Your task to perform on an android device: Go to calendar. Show me events next week Image 0: 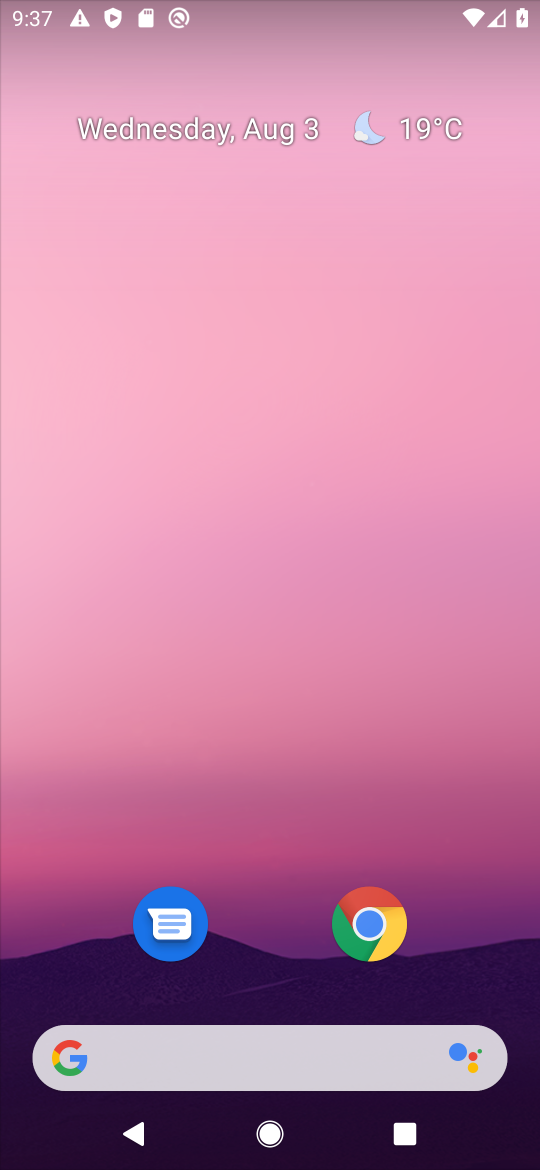
Step 0: press home button
Your task to perform on an android device: Go to calendar. Show me events next week Image 1: 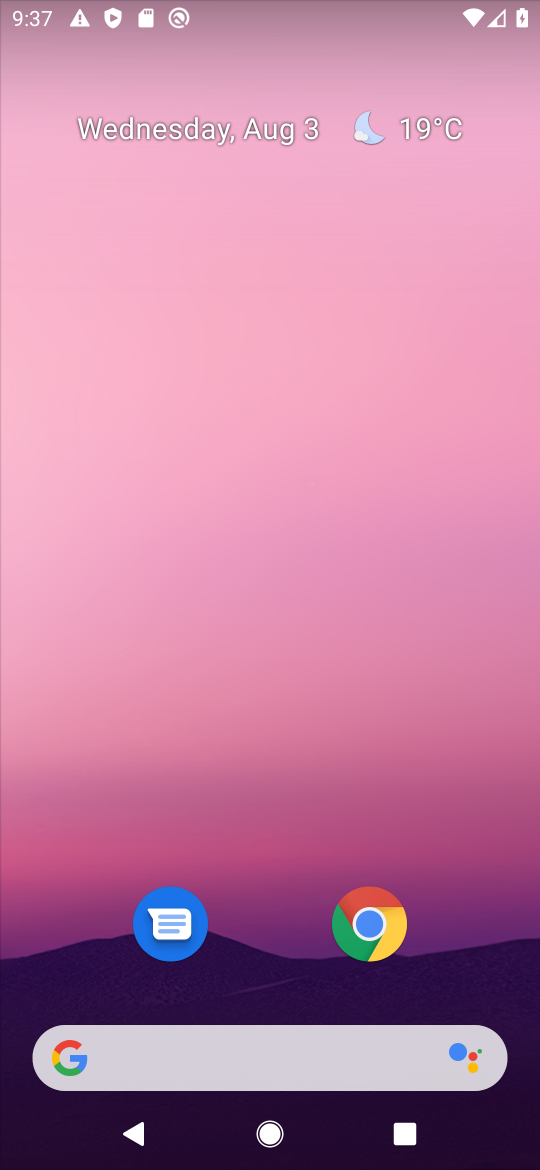
Step 1: drag from (275, 980) to (308, 51)
Your task to perform on an android device: Go to calendar. Show me events next week Image 2: 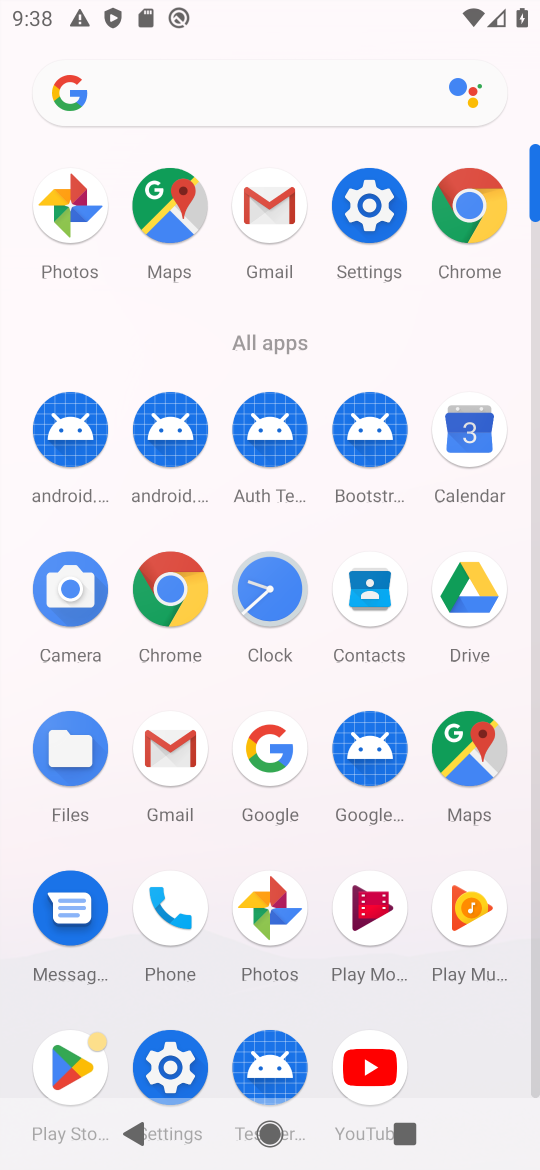
Step 2: click (471, 426)
Your task to perform on an android device: Go to calendar. Show me events next week Image 3: 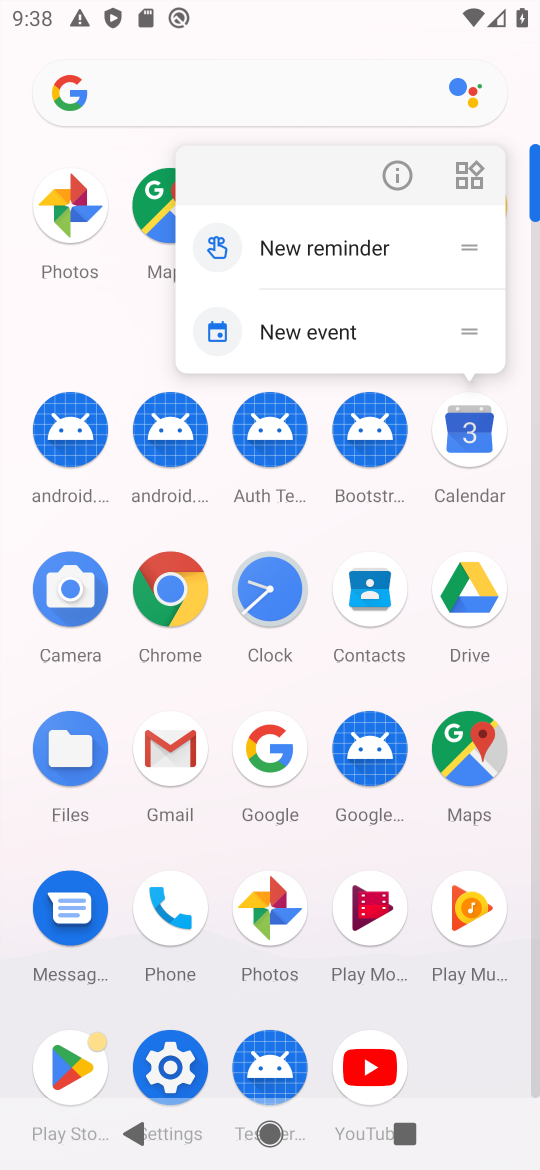
Step 3: click (464, 437)
Your task to perform on an android device: Go to calendar. Show me events next week Image 4: 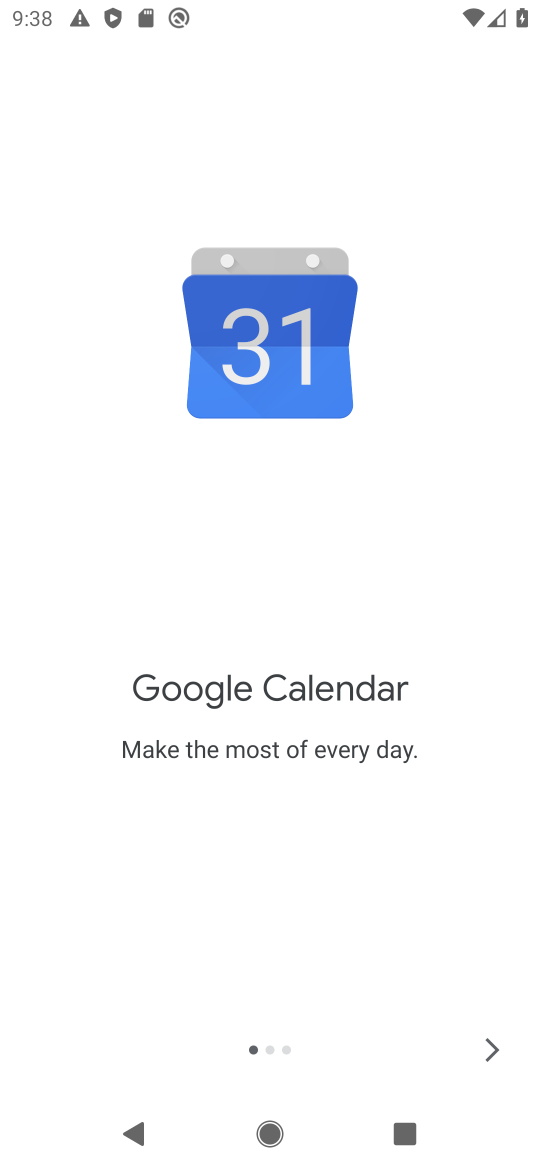
Step 4: click (486, 1039)
Your task to perform on an android device: Go to calendar. Show me events next week Image 5: 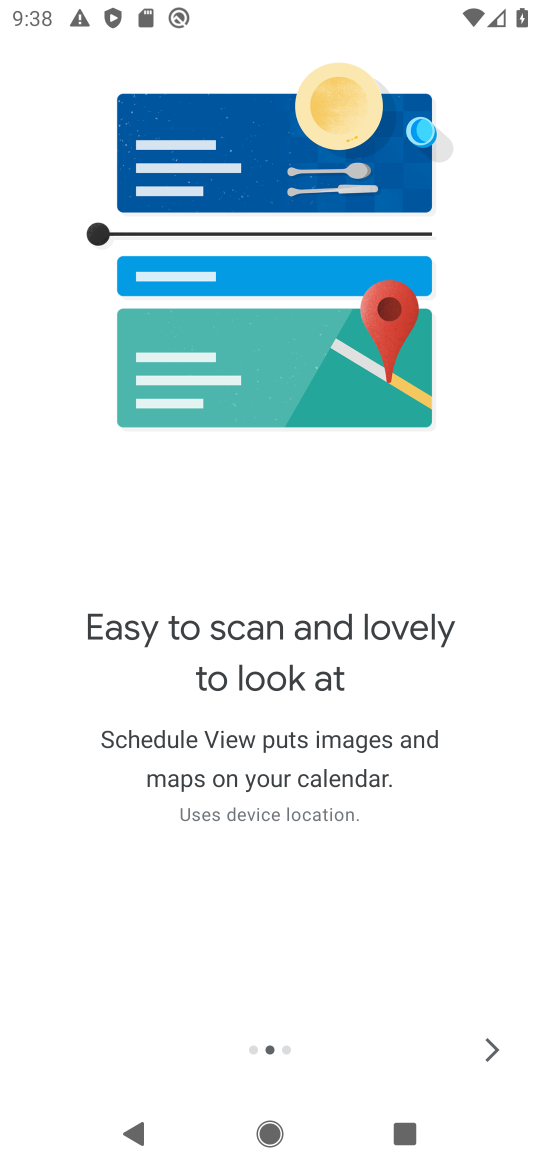
Step 5: click (486, 1041)
Your task to perform on an android device: Go to calendar. Show me events next week Image 6: 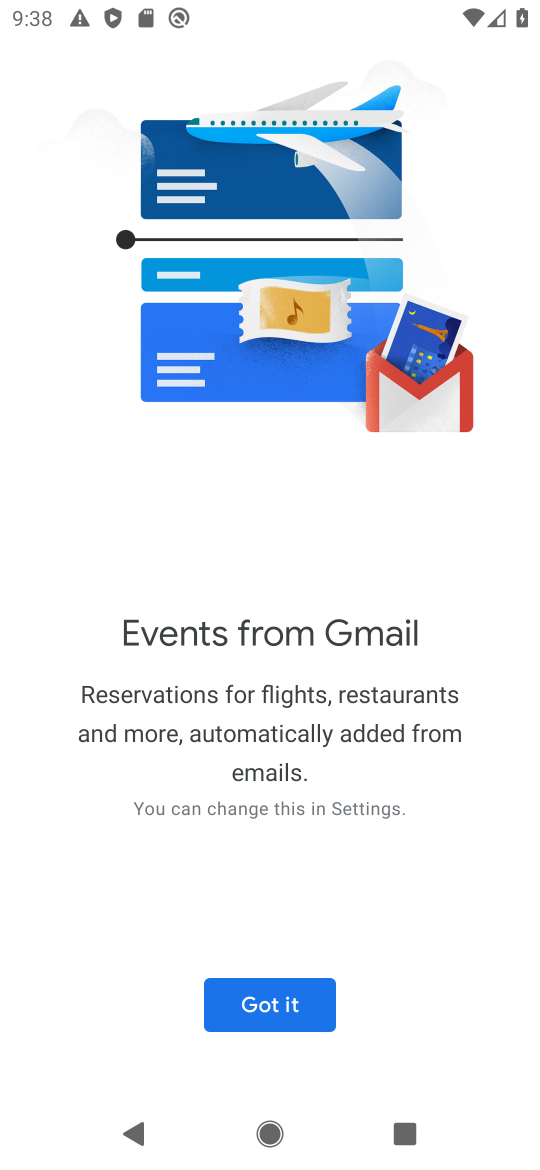
Step 6: click (263, 997)
Your task to perform on an android device: Go to calendar. Show me events next week Image 7: 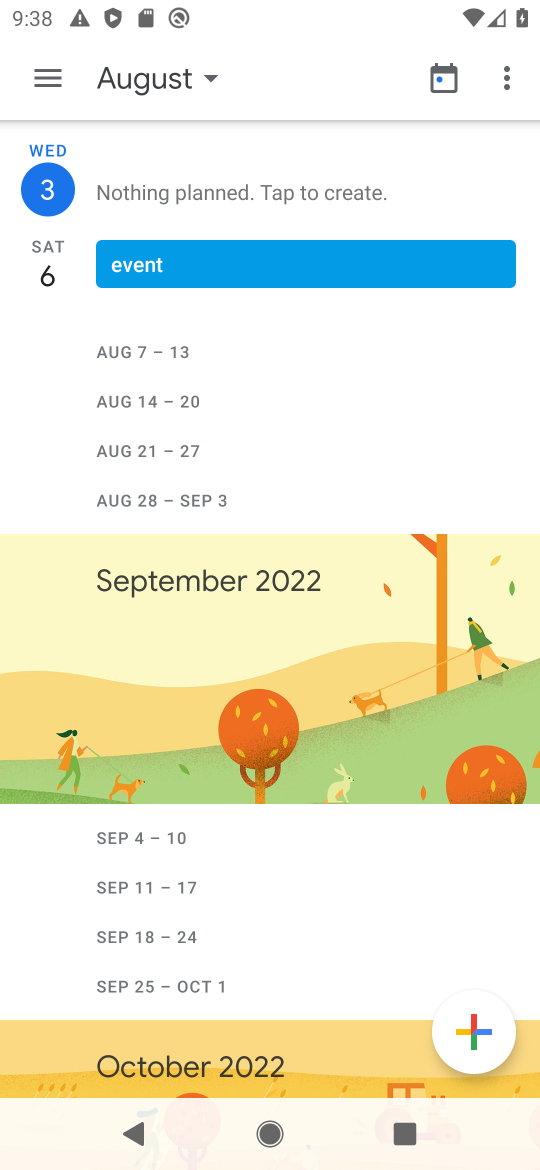
Step 7: click (43, 78)
Your task to perform on an android device: Go to calendar. Show me events next week Image 8: 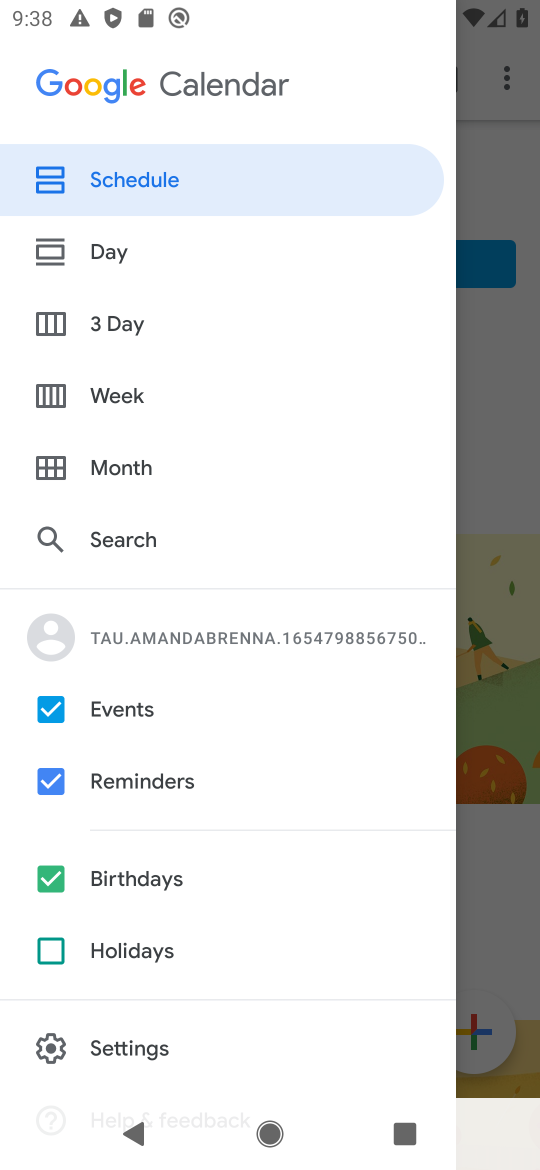
Step 8: click (143, 390)
Your task to perform on an android device: Go to calendar. Show me events next week Image 9: 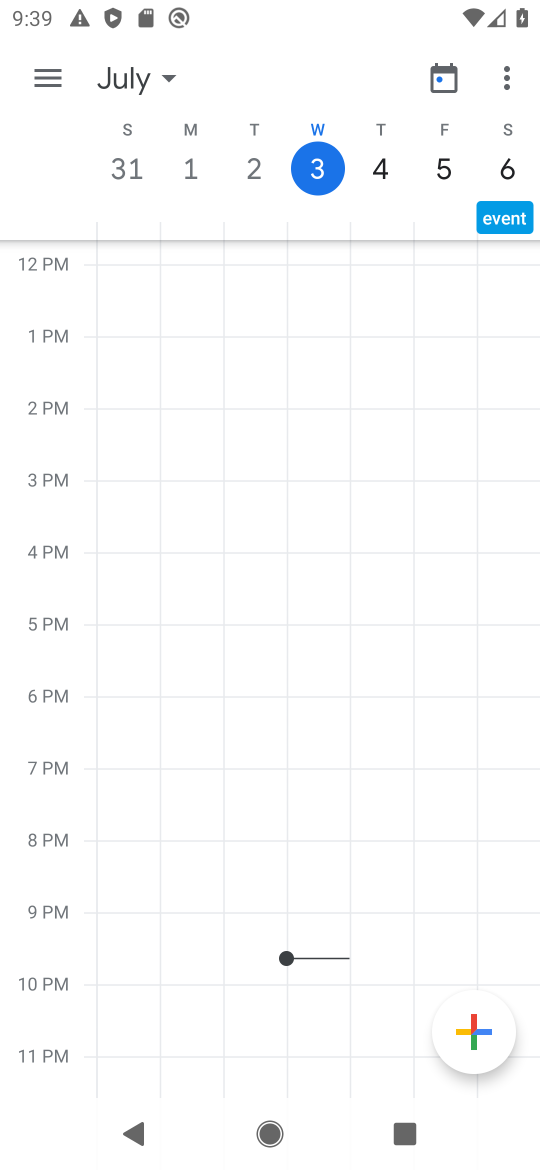
Step 9: task complete